Your task to perform on an android device: uninstall "PlayWell" Image 0: 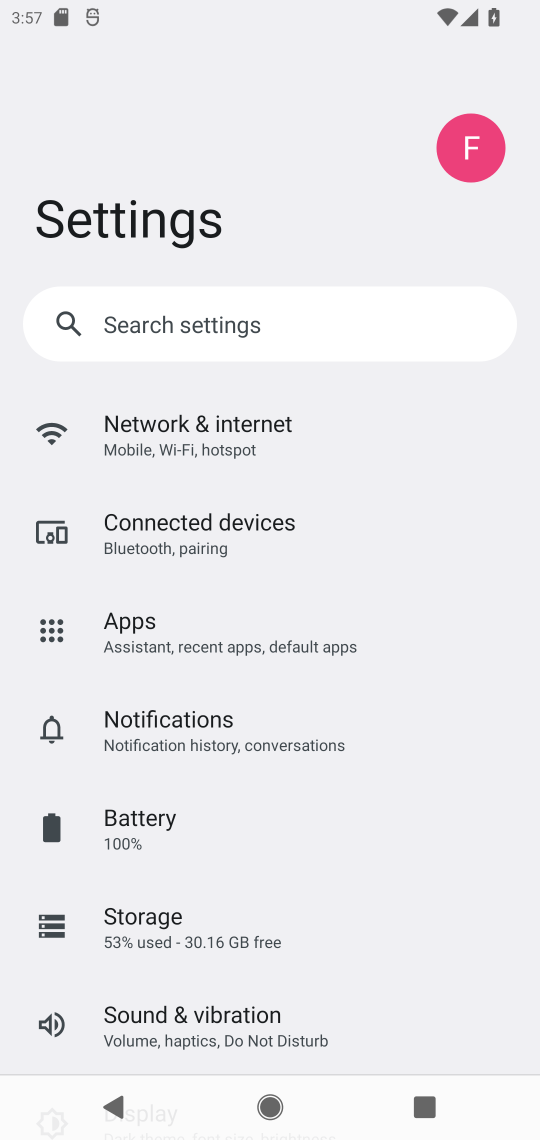
Step 0: press home button
Your task to perform on an android device: uninstall "PlayWell" Image 1: 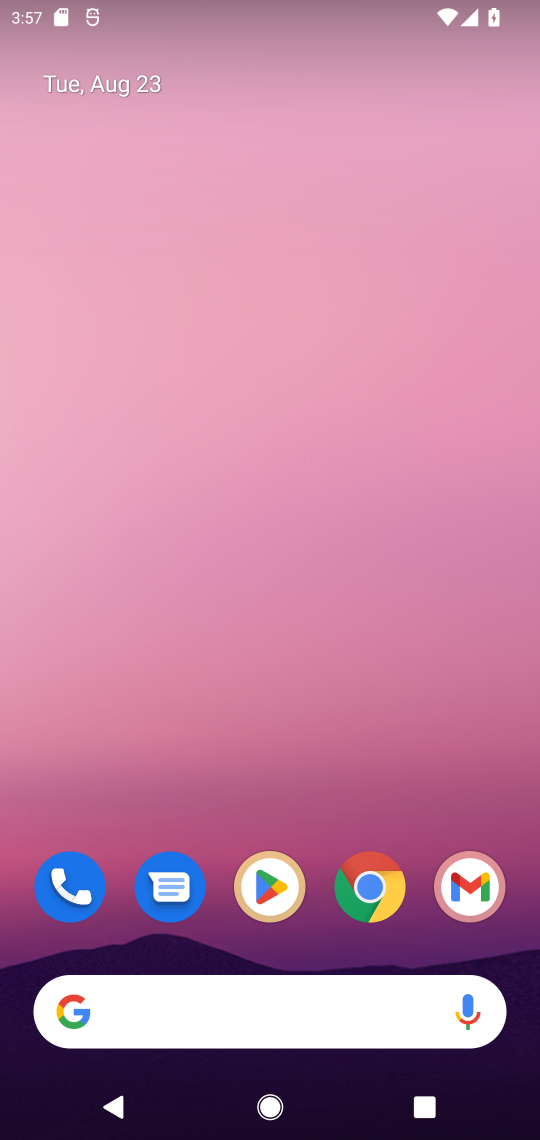
Step 1: click (260, 886)
Your task to perform on an android device: uninstall "PlayWell" Image 2: 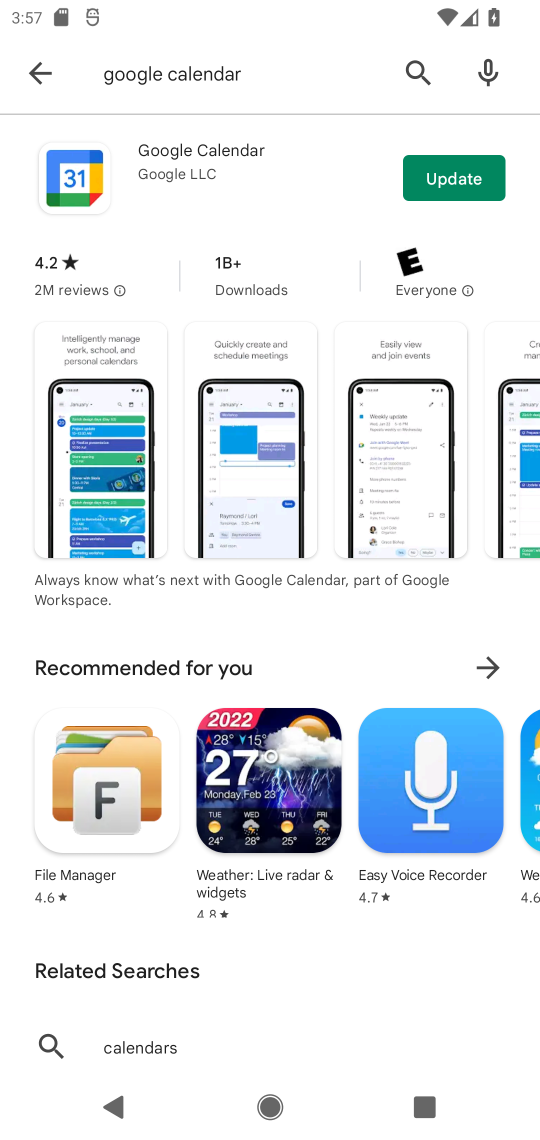
Step 2: click (34, 62)
Your task to perform on an android device: uninstall "PlayWell" Image 3: 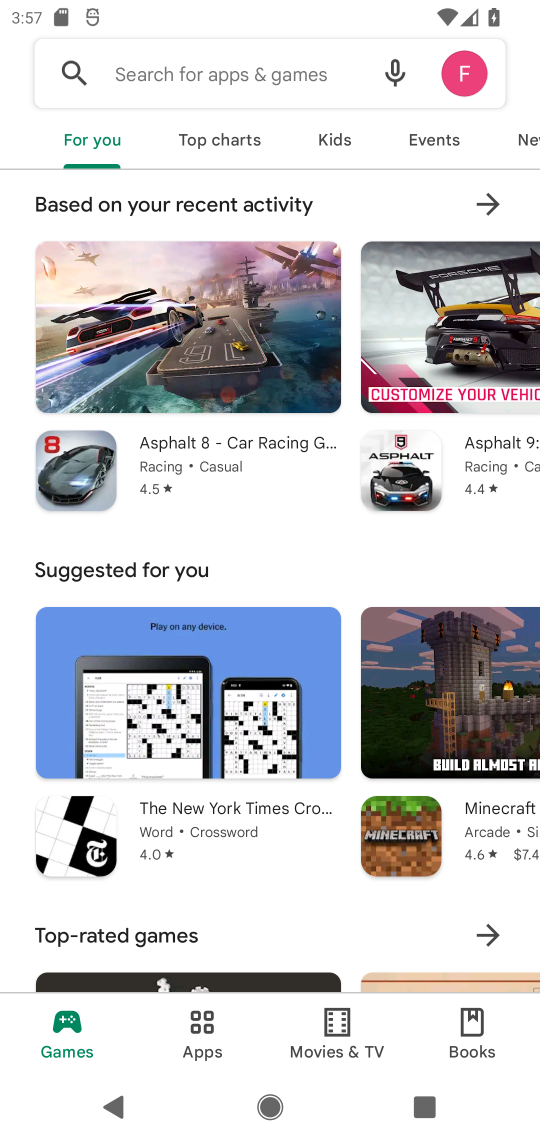
Step 3: click (223, 60)
Your task to perform on an android device: uninstall "PlayWell" Image 4: 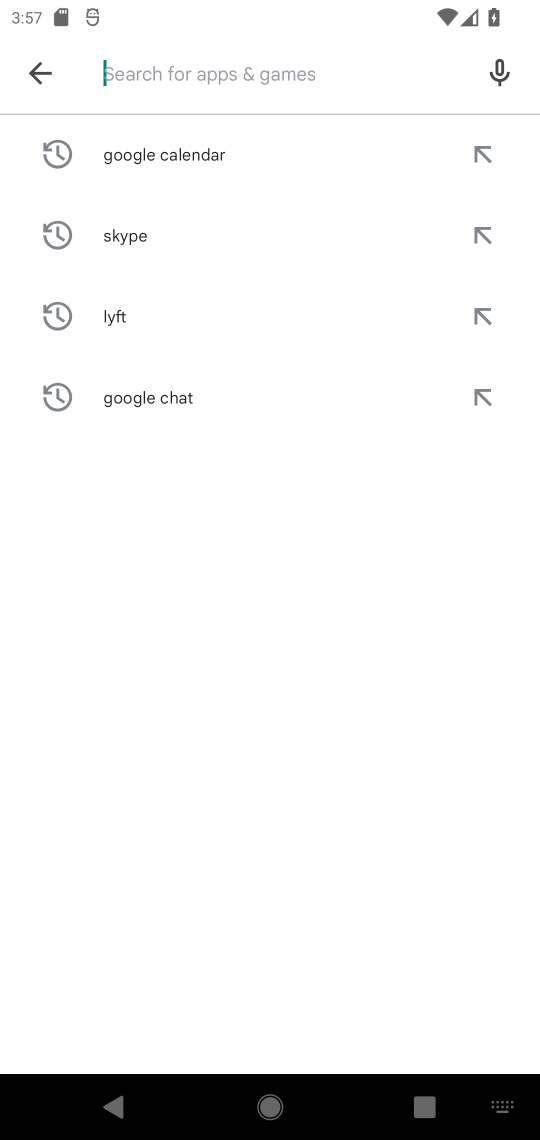
Step 4: type "PlayWell"
Your task to perform on an android device: uninstall "PlayWell" Image 5: 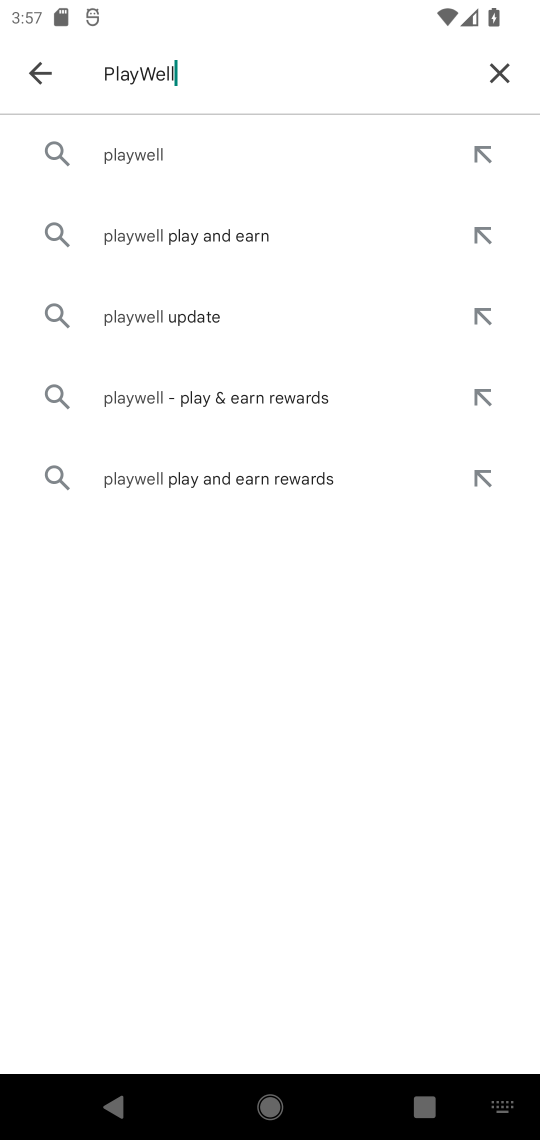
Step 5: click (129, 161)
Your task to perform on an android device: uninstall "PlayWell" Image 6: 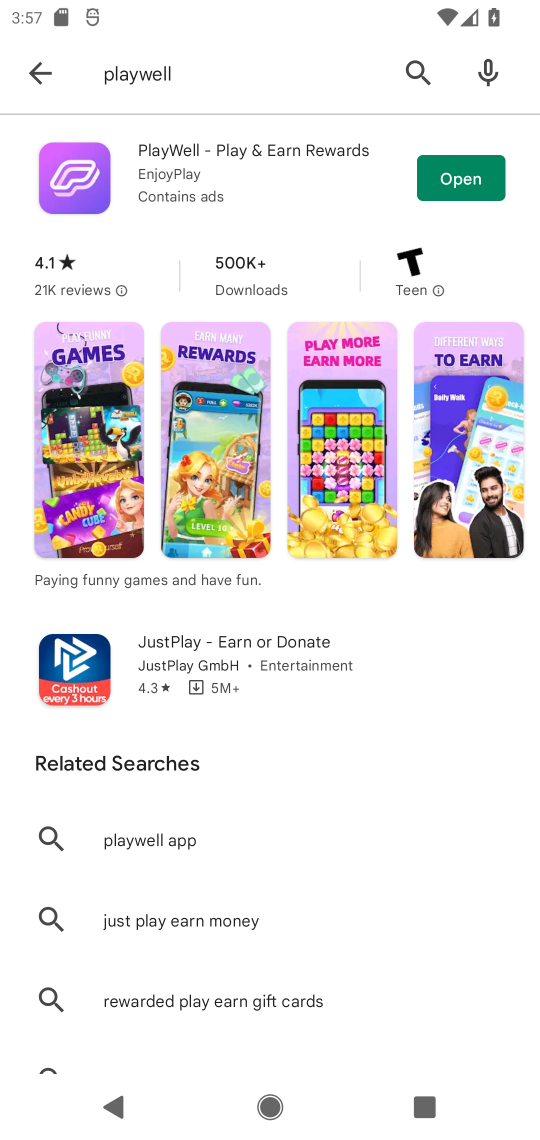
Step 6: click (173, 169)
Your task to perform on an android device: uninstall "PlayWell" Image 7: 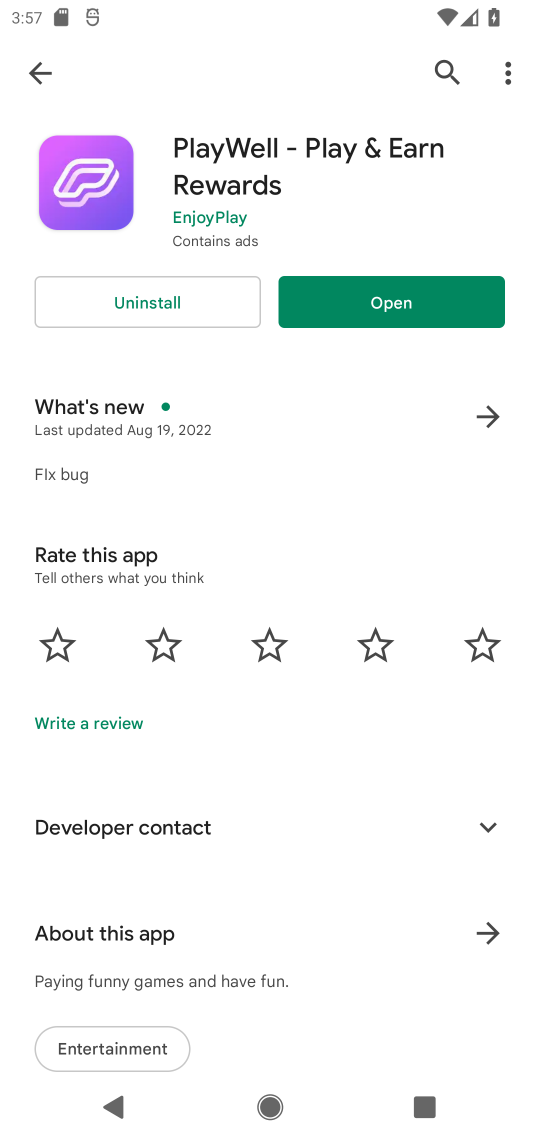
Step 7: click (142, 301)
Your task to perform on an android device: uninstall "PlayWell" Image 8: 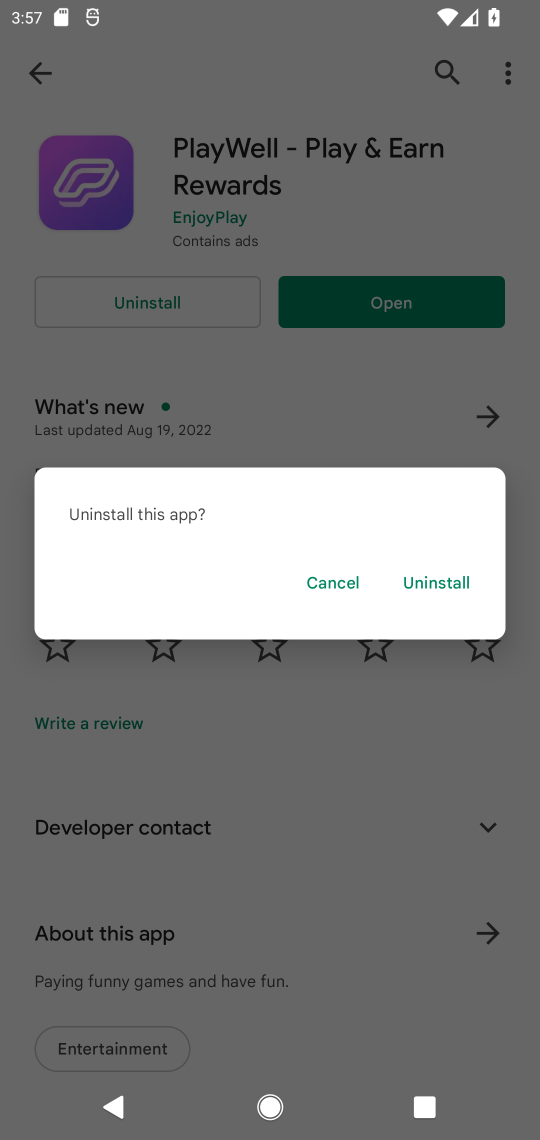
Step 8: click (426, 586)
Your task to perform on an android device: uninstall "PlayWell" Image 9: 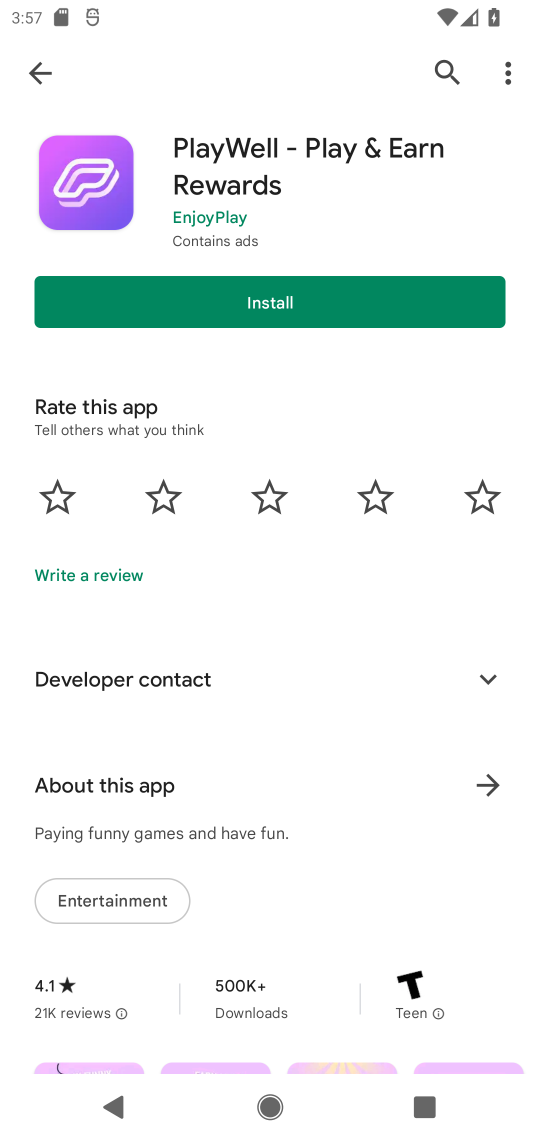
Step 9: task complete